Your task to perform on an android device: Go to notification settings Image 0: 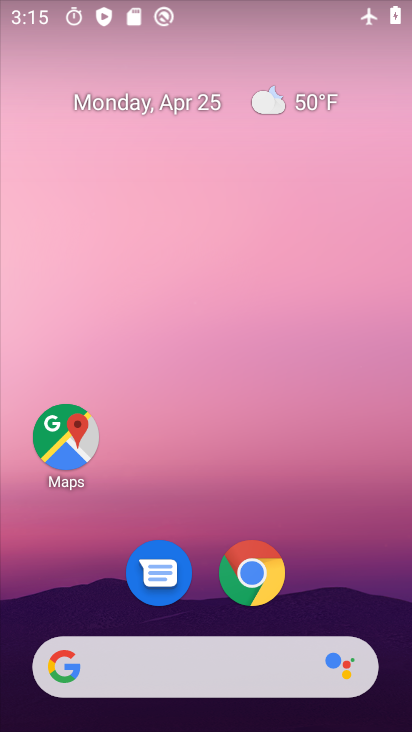
Step 0: drag from (361, 434) to (402, 23)
Your task to perform on an android device: Go to notification settings Image 1: 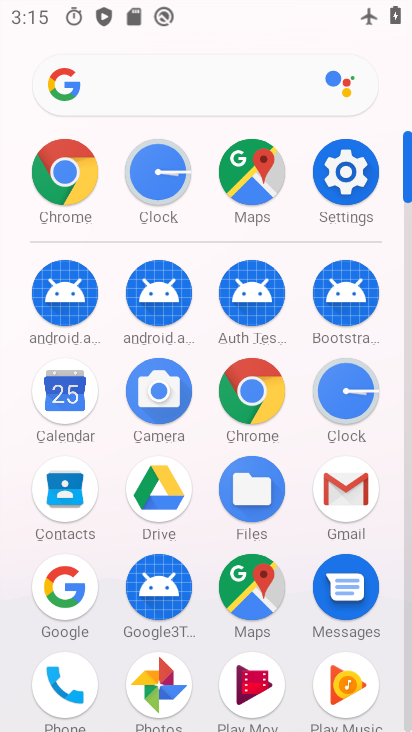
Step 1: click (337, 176)
Your task to perform on an android device: Go to notification settings Image 2: 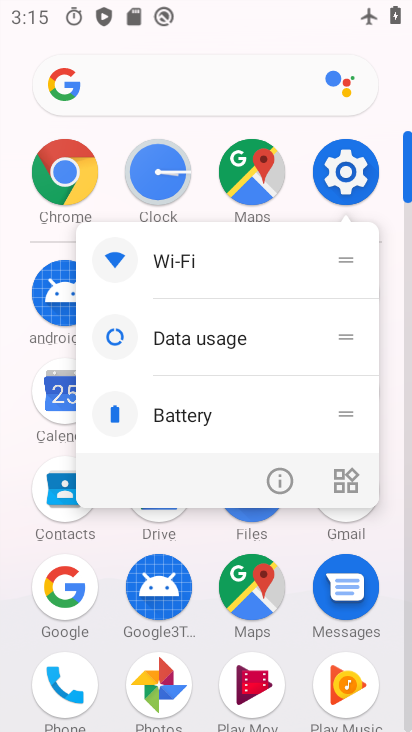
Step 2: click (337, 176)
Your task to perform on an android device: Go to notification settings Image 3: 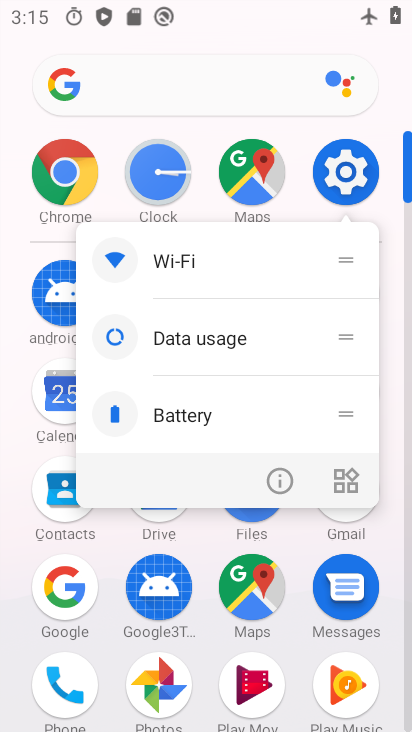
Step 3: click (337, 176)
Your task to perform on an android device: Go to notification settings Image 4: 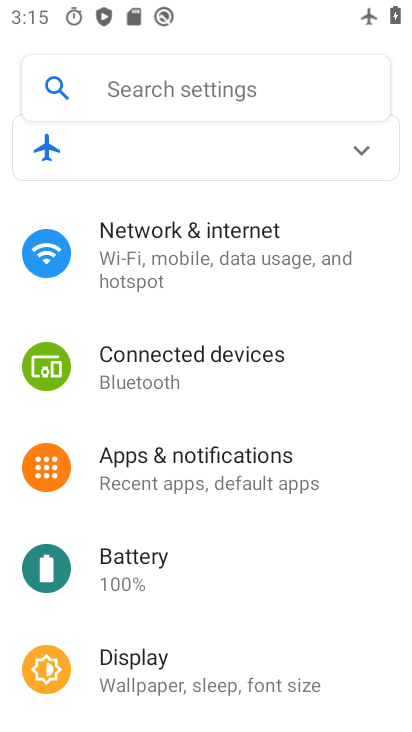
Step 4: click (265, 469)
Your task to perform on an android device: Go to notification settings Image 5: 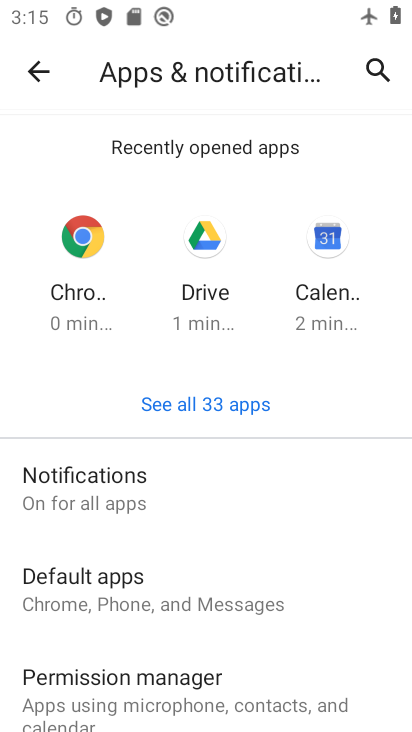
Step 5: click (95, 491)
Your task to perform on an android device: Go to notification settings Image 6: 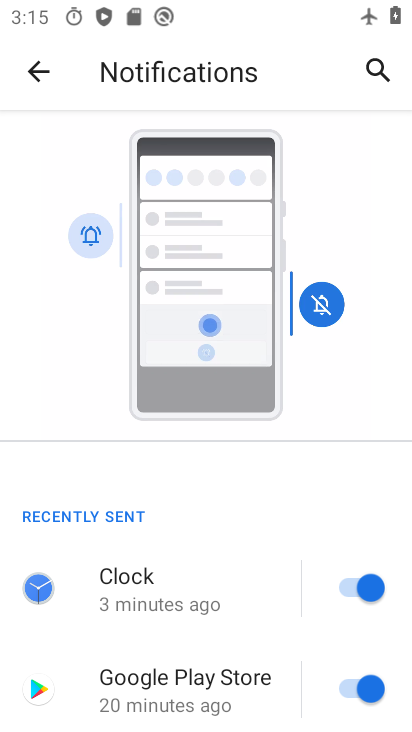
Step 6: task complete